Your task to perform on an android device: turn on notifications settings in the gmail app Image 0: 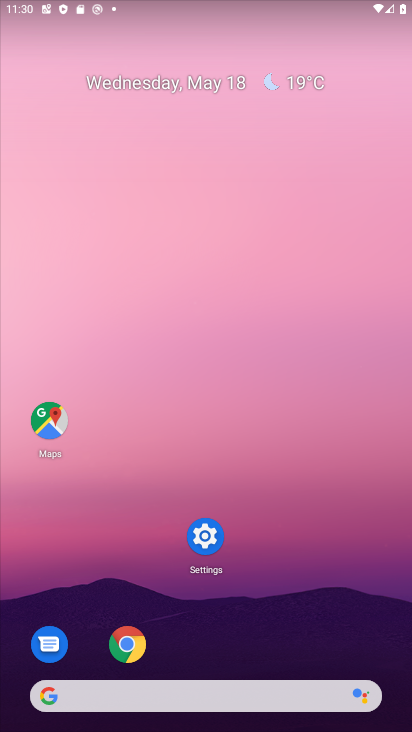
Step 0: drag from (327, 598) to (245, 167)
Your task to perform on an android device: turn on notifications settings in the gmail app Image 1: 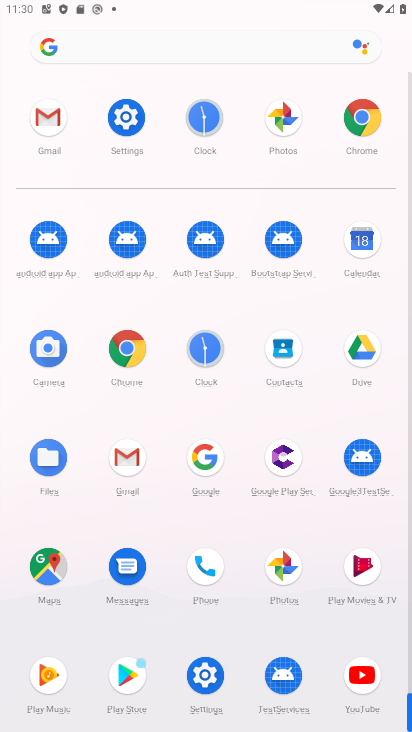
Step 1: click (130, 454)
Your task to perform on an android device: turn on notifications settings in the gmail app Image 2: 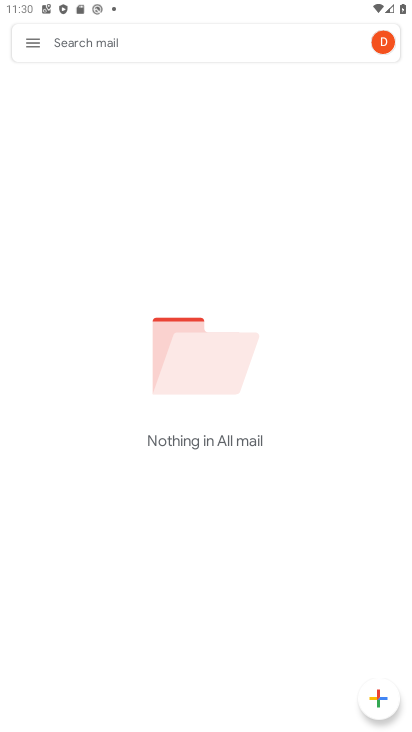
Step 2: click (31, 42)
Your task to perform on an android device: turn on notifications settings in the gmail app Image 3: 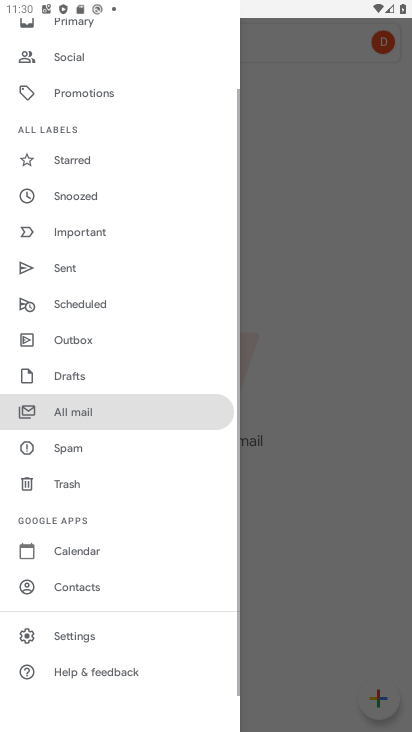
Step 3: drag from (110, 550) to (164, 282)
Your task to perform on an android device: turn on notifications settings in the gmail app Image 4: 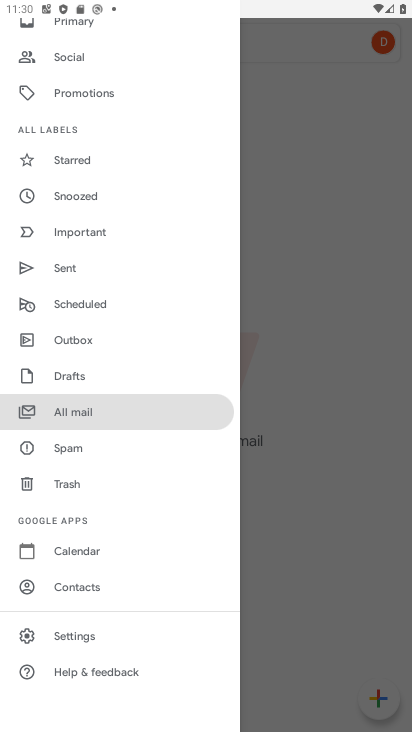
Step 4: click (89, 636)
Your task to perform on an android device: turn on notifications settings in the gmail app Image 5: 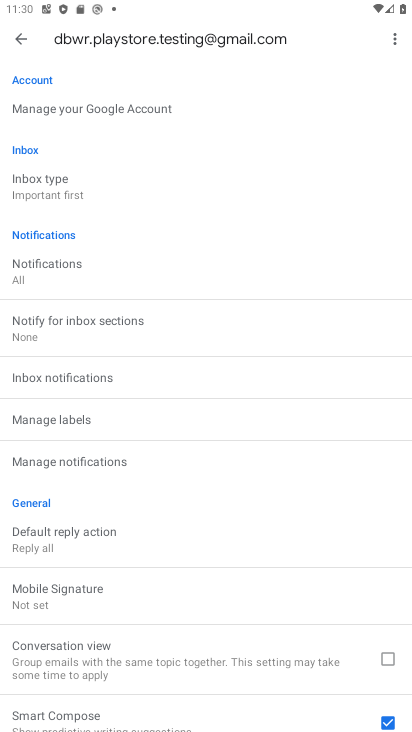
Step 5: click (129, 454)
Your task to perform on an android device: turn on notifications settings in the gmail app Image 6: 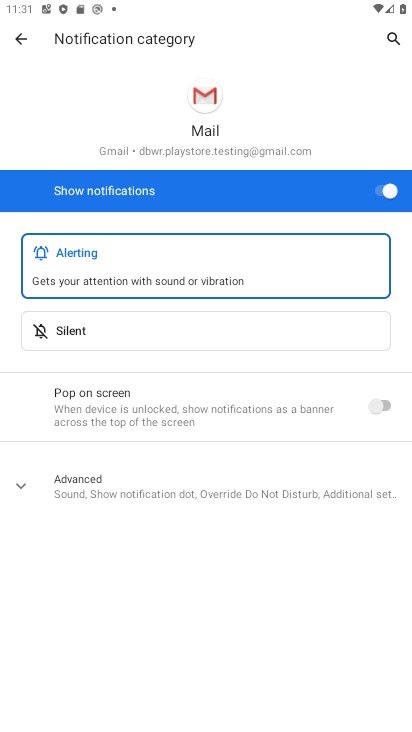
Step 6: task complete